Your task to perform on an android device: refresh tabs in the chrome app Image 0: 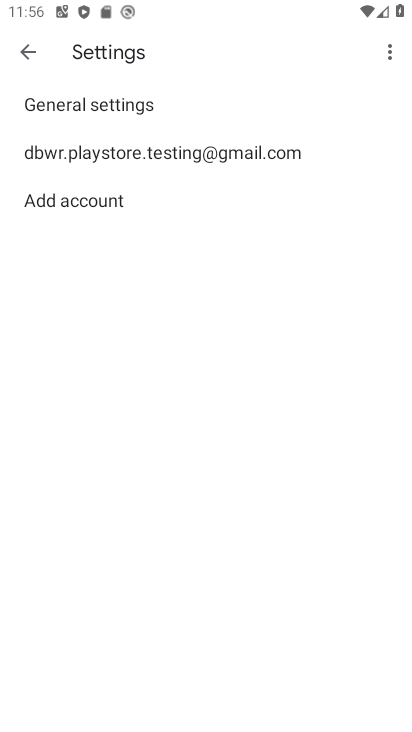
Step 0: press home button
Your task to perform on an android device: refresh tabs in the chrome app Image 1: 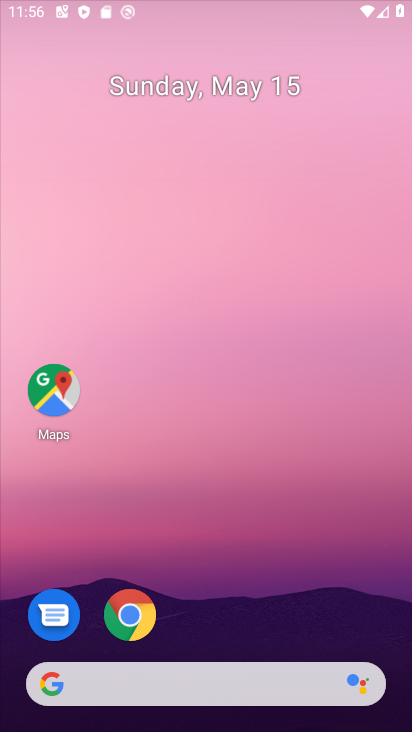
Step 1: drag from (333, 561) to (297, 164)
Your task to perform on an android device: refresh tabs in the chrome app Image 2: 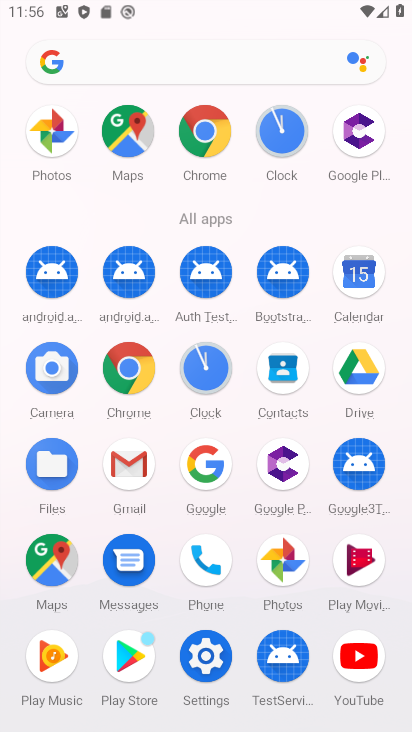
Step 2: click (125, 374)
Your task to perform on an android device: refresh tabs in the chrome app Image 3: 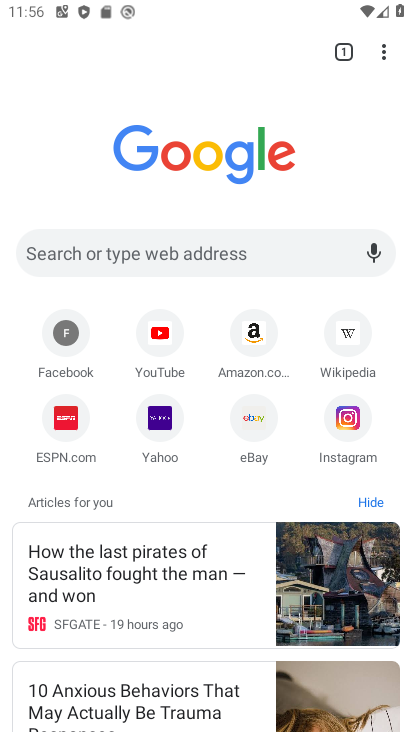
Step 3: click (205, 111)
Your task to perform on an android device: refresh tabs in the chrome app Image 4: 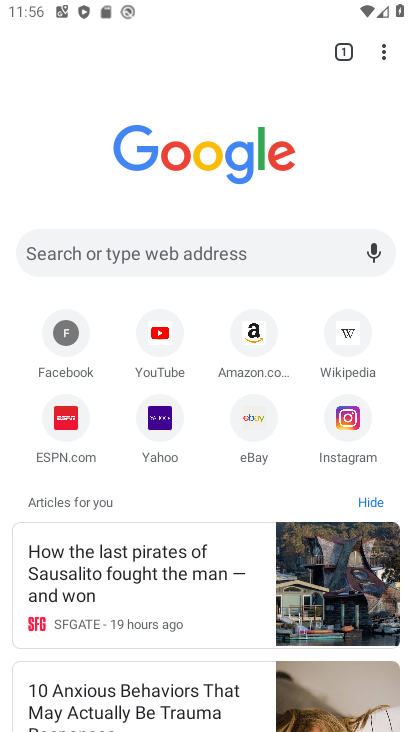
Step 4: click (374, 50)
Your task to perform on an android device: refresh tabs in the chrome app Image 5: 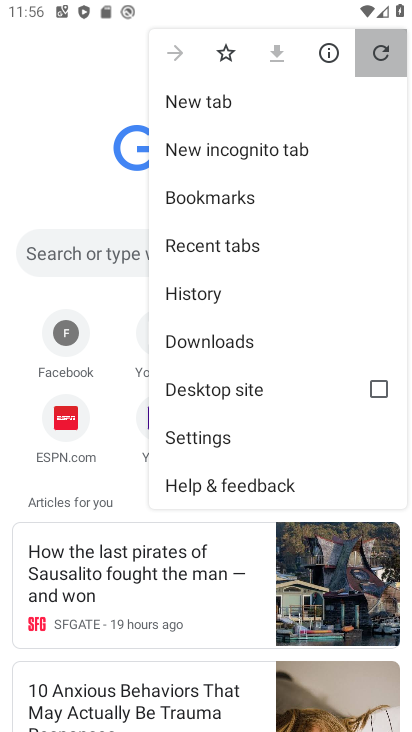
Step 5: click (385, 53)
Your task to perform on an android device: refresh tabs in the chrome app Image 6: 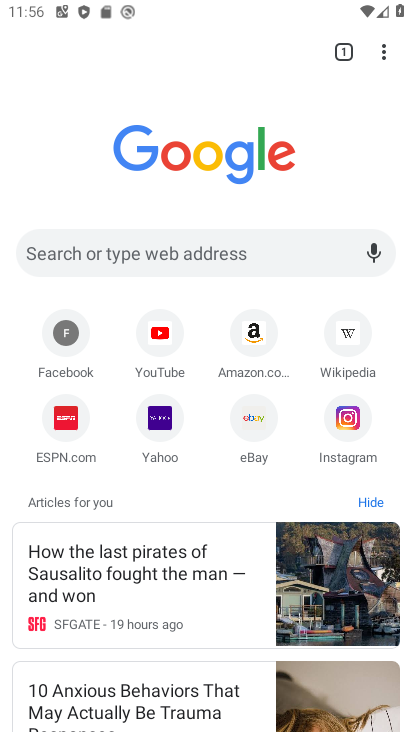
Step 6: task complete